Your task to perform on an android device: Open Google Chrome and open the bookmarks view Image 0: 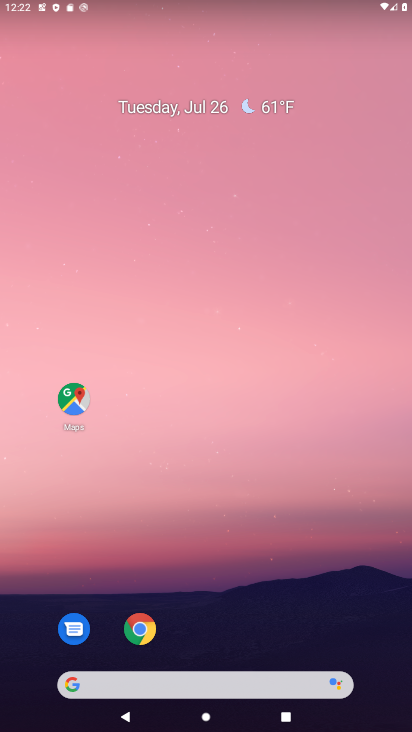
Step 0: click (138, 633)
Your task to perform on an android device: Open Google Chrome and open the bookmarks view Image 1: 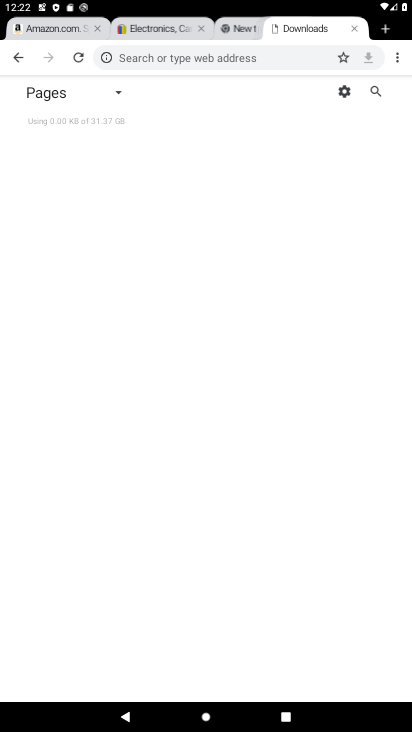
Step 1: click (395, 60)
Your task to perform on an android device: Open Google Chrome and open the bookmarks view Image 2: 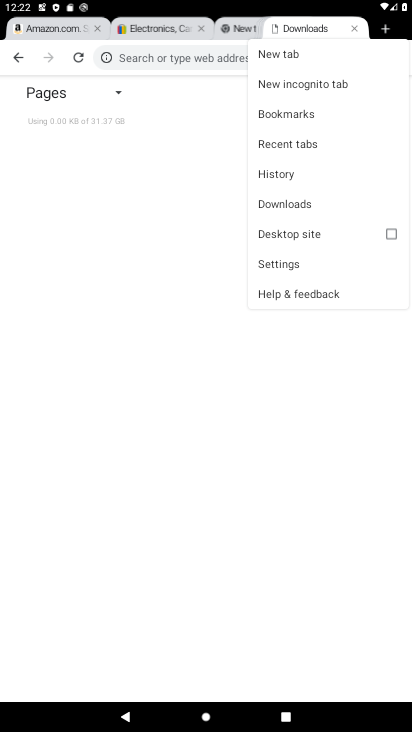
Step 2: click (311, 110)
Your task to perform on an android device: Open Google Chrome and open the bookmarks view Image 3: 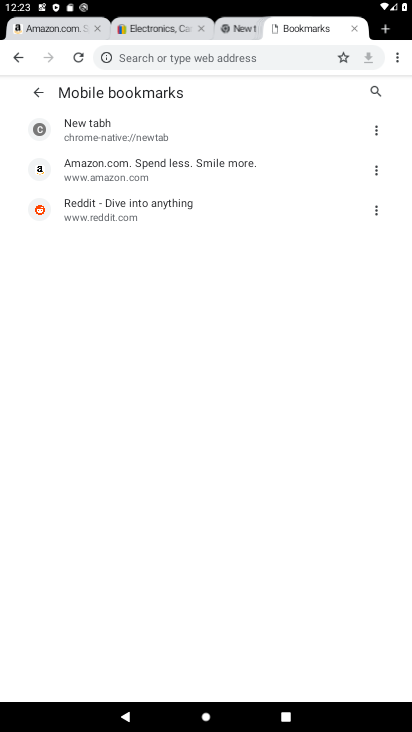
Step 3: task complete